Your task to perform on an android device: add a contact in the contacts app Image 0: 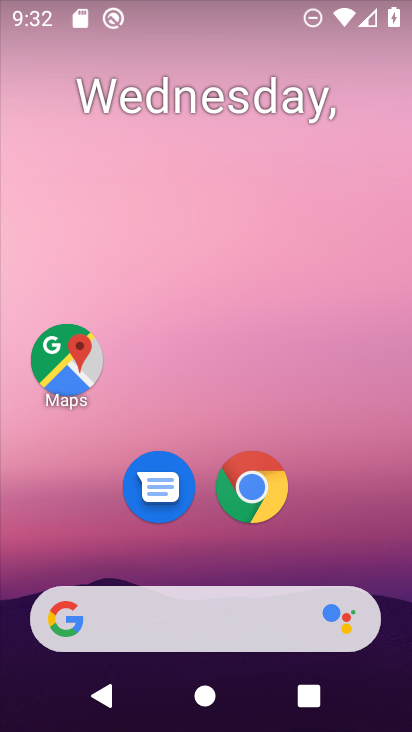
Step 0: press home button
Your task to perform on an android device: add a contact in the contacts app Image 1: 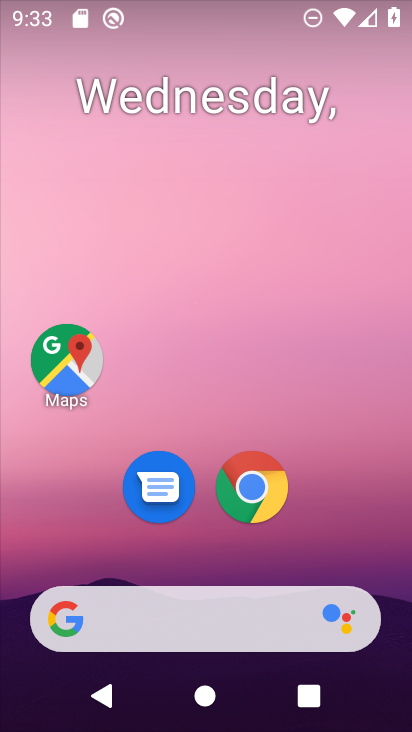
Step 1: drag from (312, 660) to (195, 210)
Your task to perform on an android device: add a contact in the contacts app Image 2: 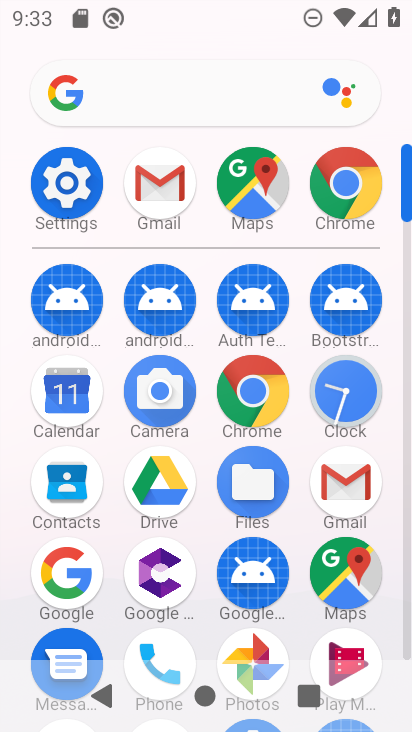
Step 2: click (166, 645)
Your task to perform on an android device: add a contact in the contacts app Image 3: 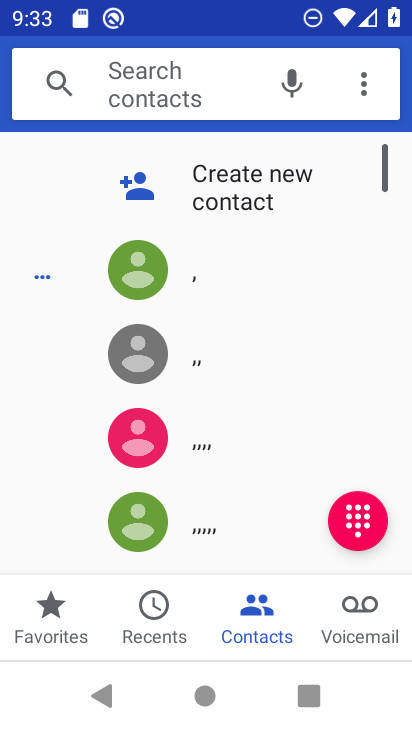
Step 3: click (194, 201)
Your task to perform on an android device: add a contact in the contacts app Image 4: 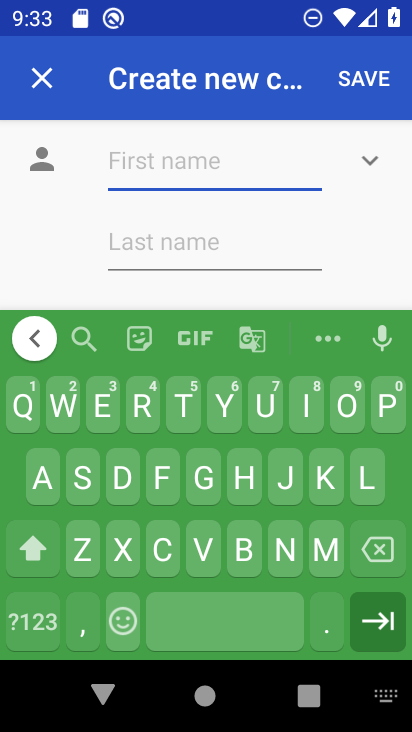
Step 4: click (226, 425)
Your task to perform on an android device: add a contact in the contacts app Image 5: 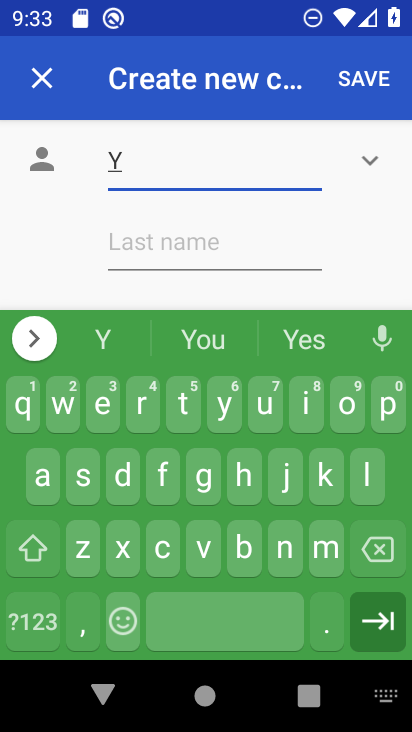
Step 5: click (135, 410)
Your task to perform on an android device: add a contact in the contacts app Image 6: 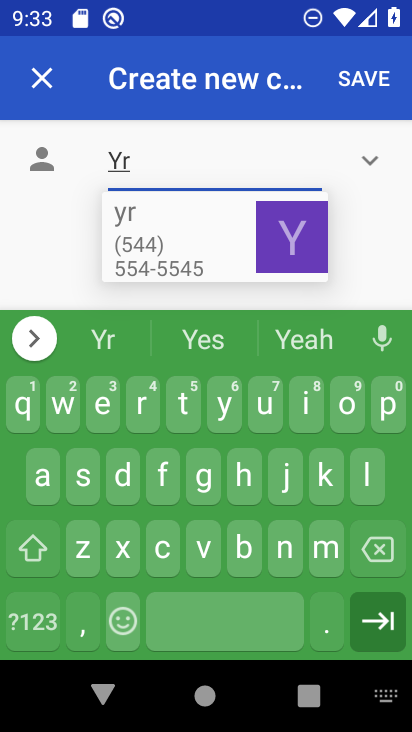
Step 6: click (40, 483)
Your task to perform on an android device: add a contact in the contacts app Image 7: 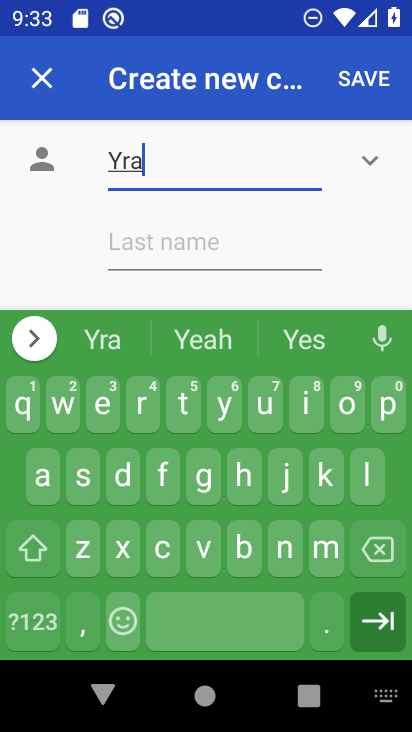
Step 7: drag from (228, 275) to (207, 216)
Your task to perform on an android device: add a contact in the contacts app Image 8: 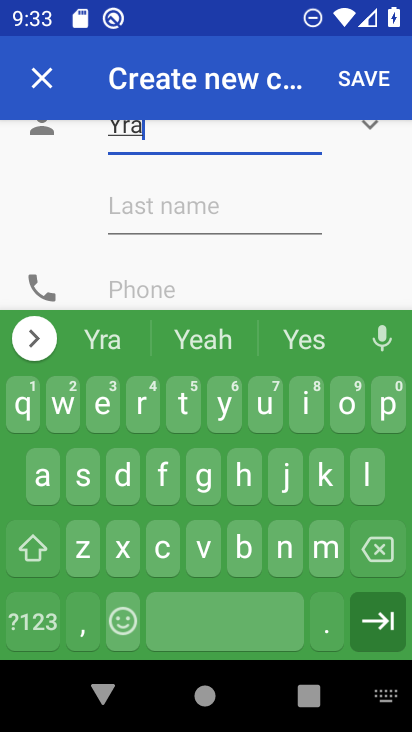
Step 8: click (160, 271)
Your task to perform on an android device: add a contact in the contacts app Image 9: 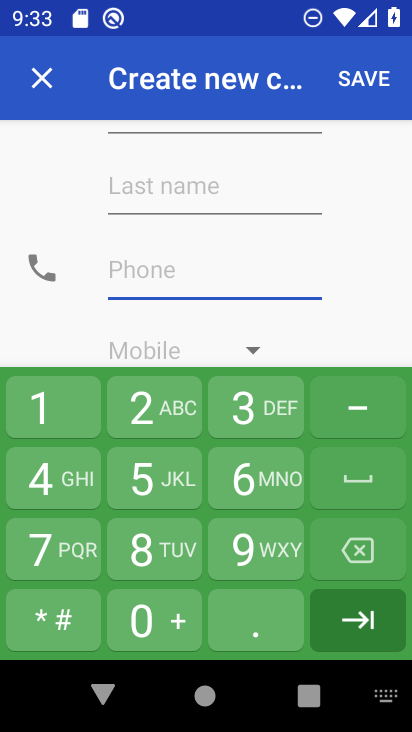
Step 9: click (249, 419)
Your task to perform on an android device: add a contact in the contacts app Image 10: 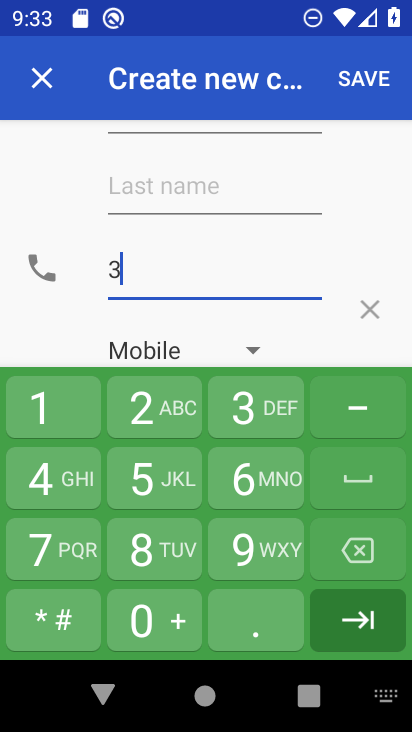
Step 10: click (242, 492)
Your task to perform on an android device: add a contact in the contacts app Image 11: 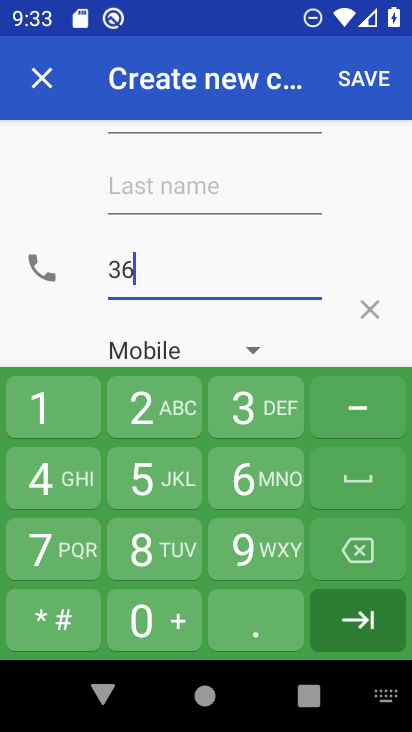
Step 11: click (136, 522)
Your task to perform on an android device: add a contact in the contacts app Image 12: 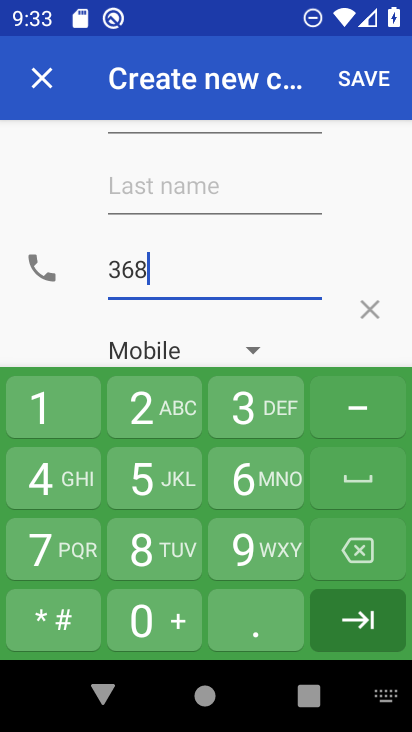
Step 12: click (11, 481)
Your task to perform on an android device: add a contact in the contacts app Image 13: 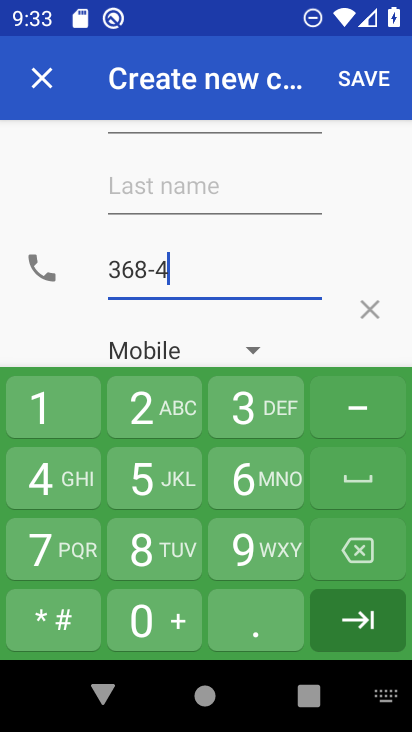
Step 13: click (71, 534)
Your task to perform on an android device: add a contact in the contacts app Image 14: 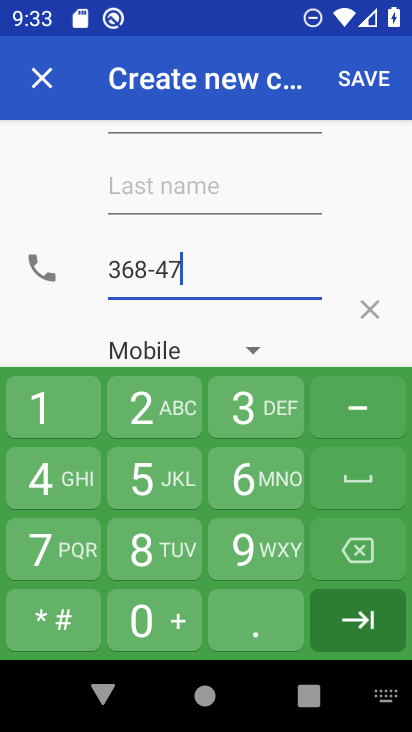
Step 14: click (151, 540)
Your task to perform on an android device: add a contact in the contacts app Image 15: 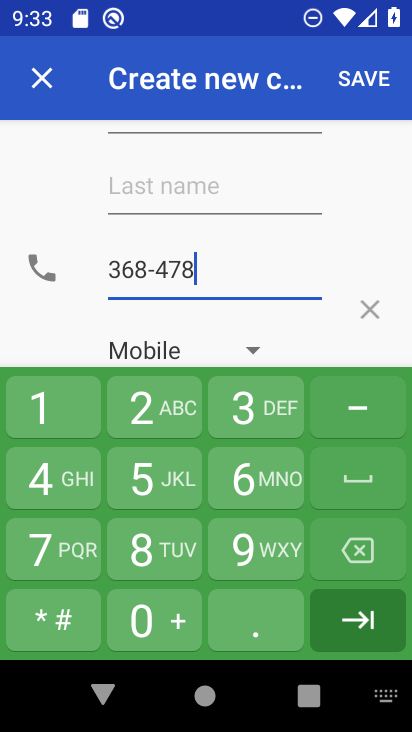
Step 15: click (162, 601)
Your task to perform on an android device: add a contact in the contacts app Image 16: 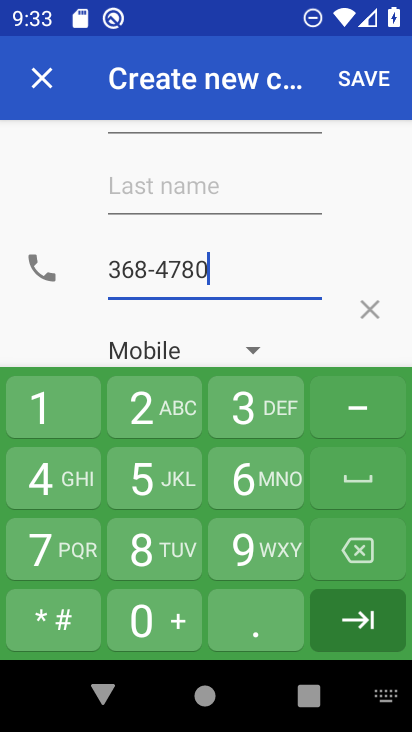
Step 16: click (367, 74)
Your task to perform on an android device: add a contact in the contacts app Image 17: 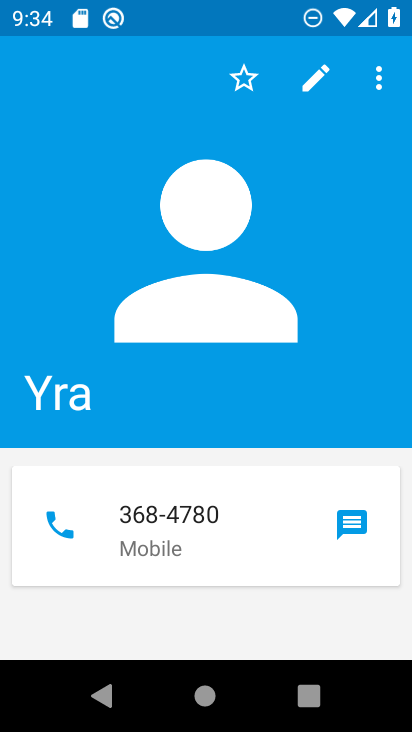
Step 17: task complete